Your task to perform on an android device: Search for seafood restaurants on Google Maps Image 0: 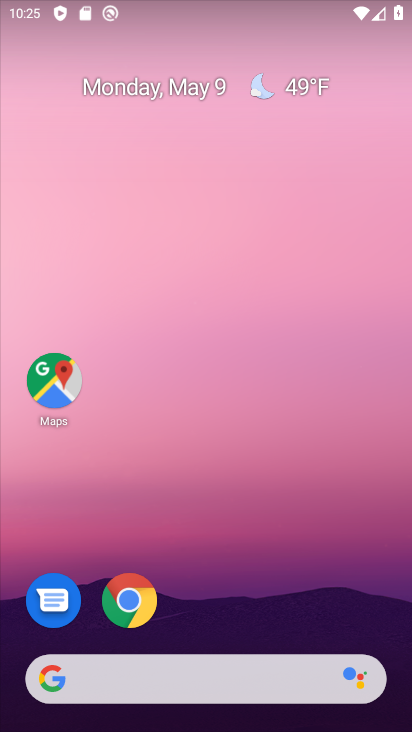
Step 0: drag from (393, 613) to (366, 129)
Your task to perform on an android device: Search for seafood restaurants on Google Maps Image 1: 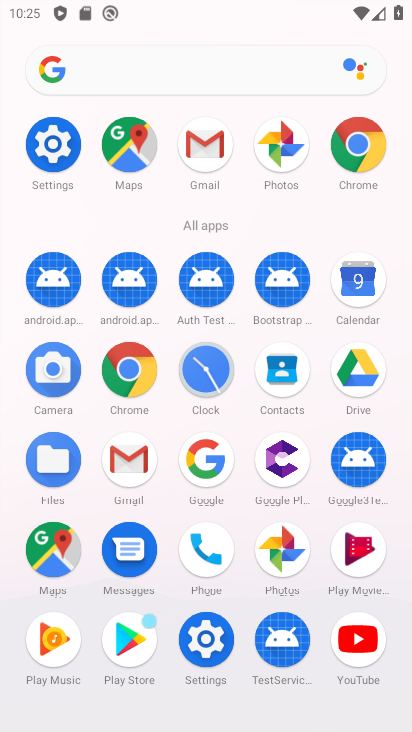
Step 1: click (132, 153)
Your task to perform on an android device: Search for seafood restaurants on Google Maps Image 2: 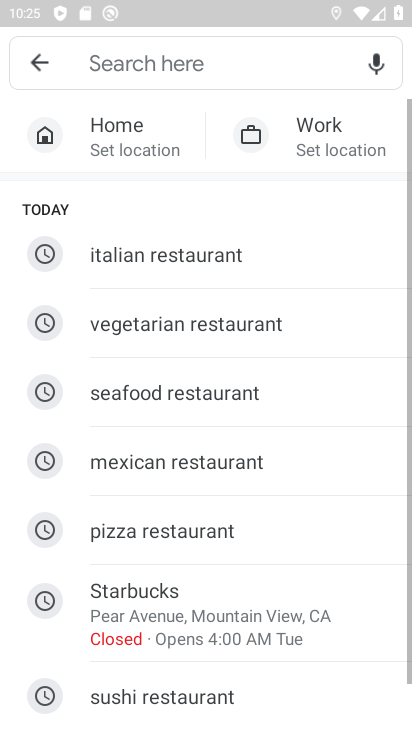
Step 2: click (173, 69)
Your task to perform on an android device: Search for seafood restaurants on Google Maps Image 3: 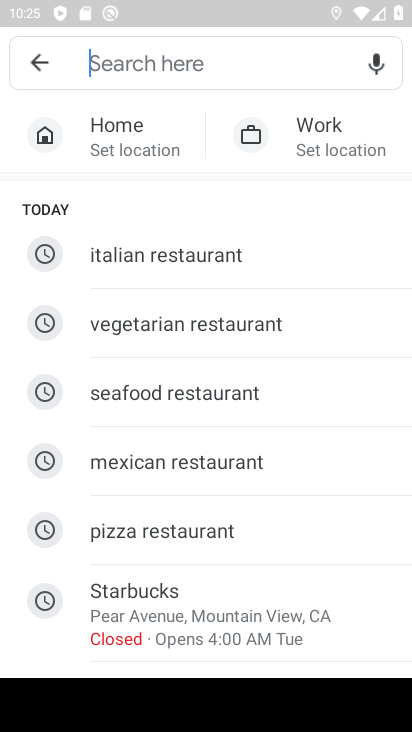
Step 3: type "seafood restaurants"
Your task to perform on an android device: Search for seafood restaurants on Google Maps Image 4: 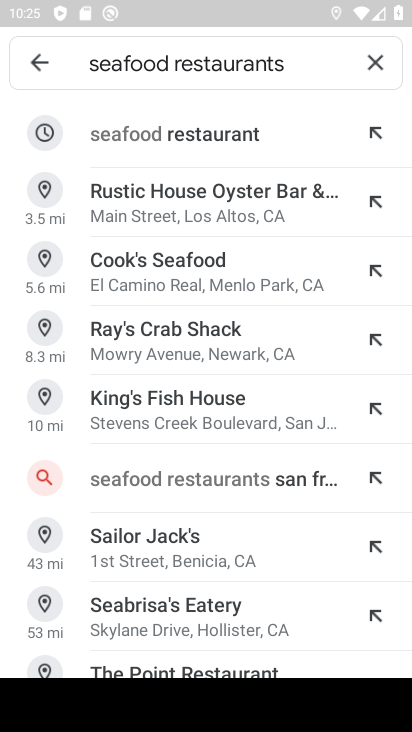
Step 4: click (198, 140)
Your task to perform on an android device: Search for seafood restaurants on Google Maps Image 5: 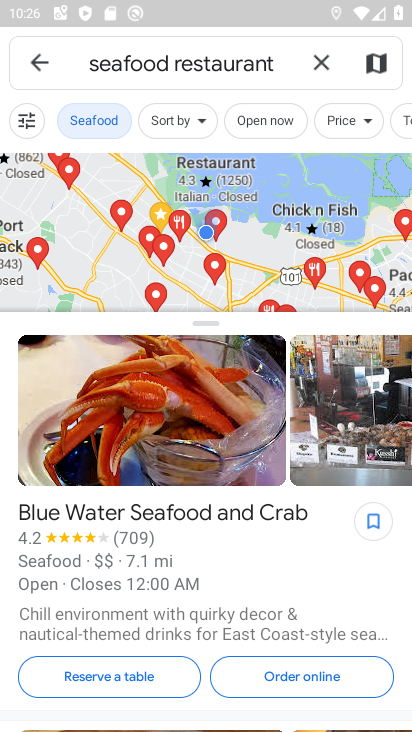
Step 5: task complete